Your task to perform on an android device: turn off translation in the chrome app Image 0: 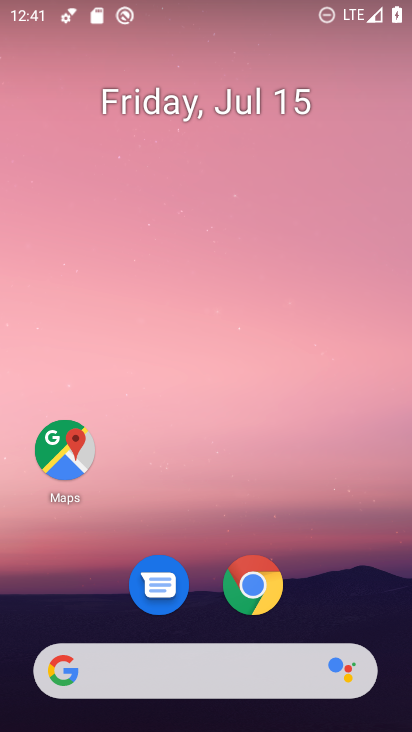
Step 0: click (269, 579)
Your task to perform on an android device: turn off translation in the chrome app Image 1: 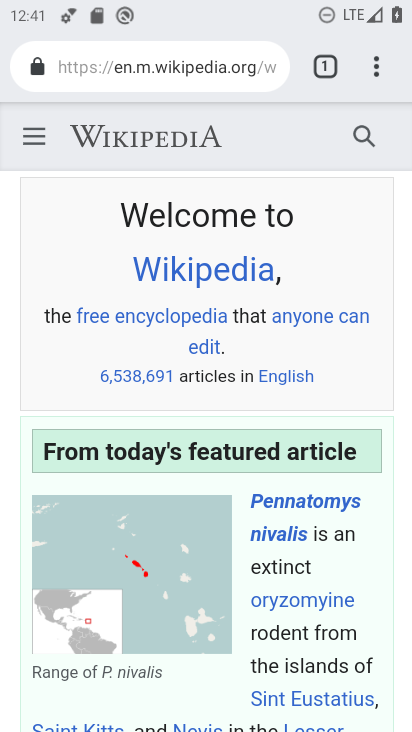
Step 1: click (378, 76)
Your task to perform on an android device: turn off translation in the chrome app Image 2: 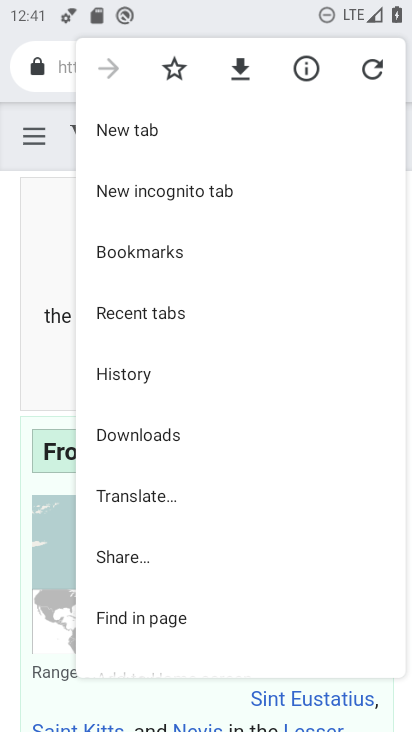
Step 2: drag from (245, 523) to (255, 151)
Your task to perform on an android device: turn off translation in the chrome app Image 3: 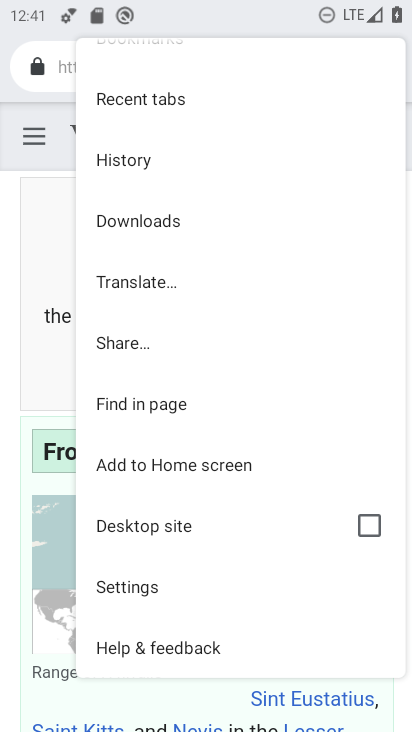
Step 3: click (156, 589)
Your task to perform on an android device: turn off translation in the chrome app Image 4: 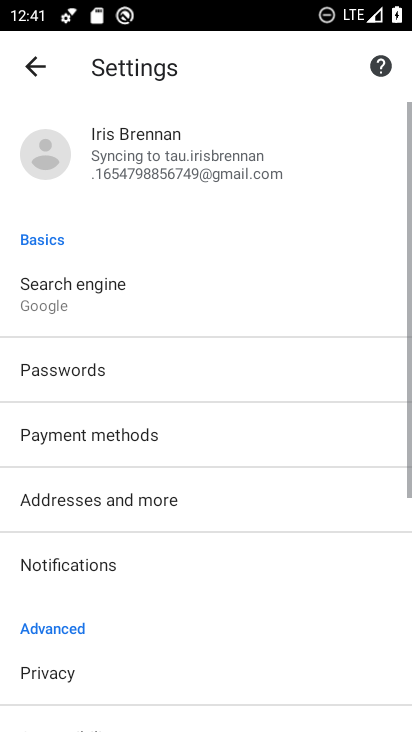
Step 4: drag from (237, 540) to (295, 82)
Your task to perform on an android device: turn off translation in the chrome app Image 5: 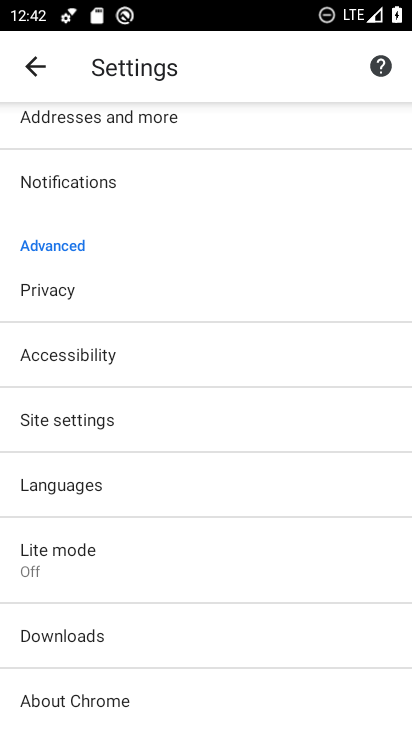
Step 5: click (181, 485)
Your task to perform on an android device: turn off translation in the chrome app Image 6: 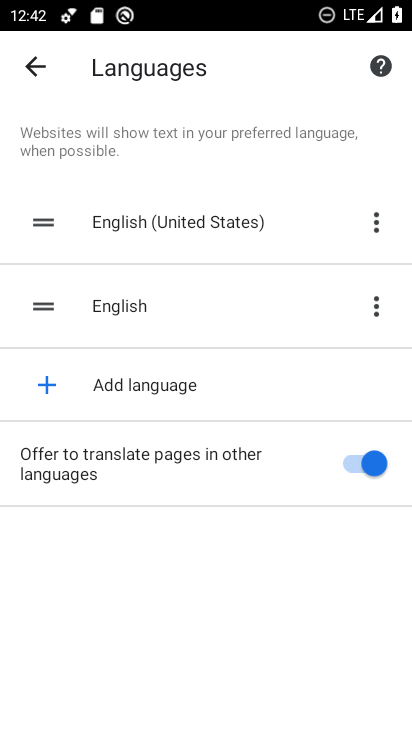
Step 6: click (374, 449)
Your task to perform on an android device: turn off translation in the chrome app Image 7: 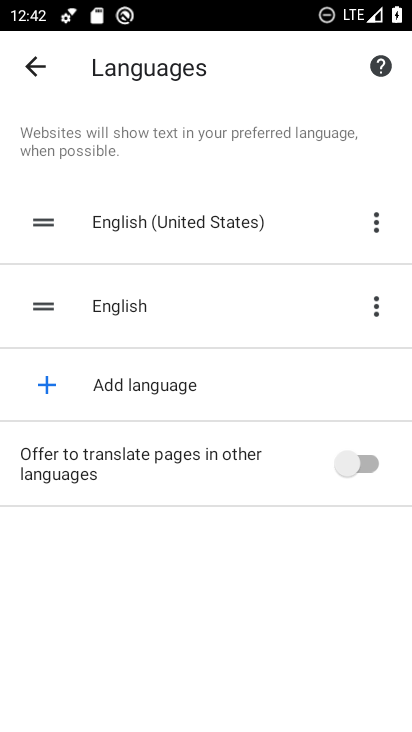
Step 7: task complete